Your task to perform on an android device: Open Chrome and go to the settings page Image 0: 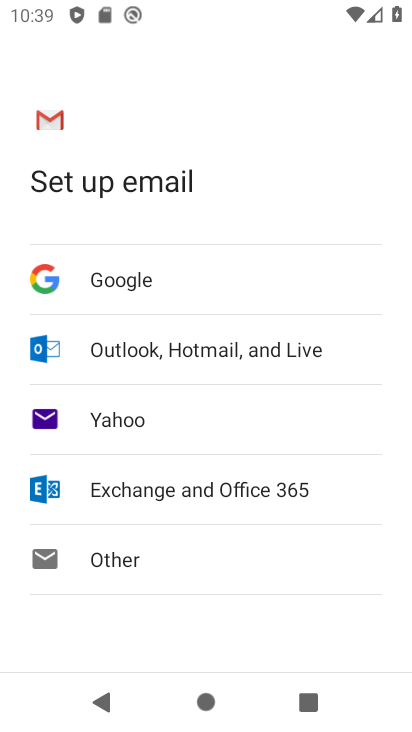
Step 0: press home button
Your task to perform on an android device: Open Chrome and go to the settings page Image 1: 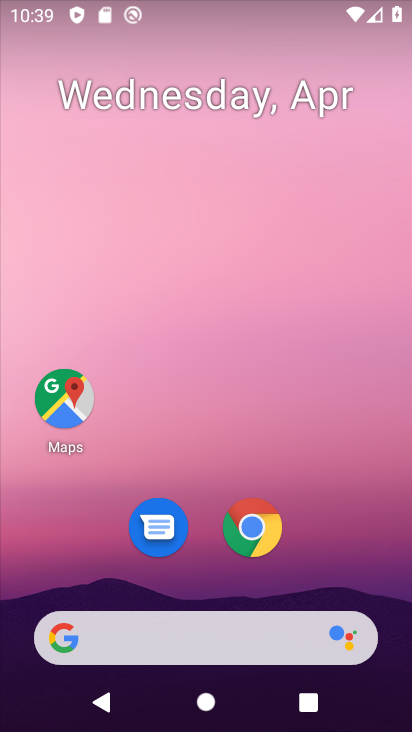
Step 1: drag from (394, 574) to (391, 118)
Your task to perform on an android device: Open Chrome and go to the settings page Image 2: 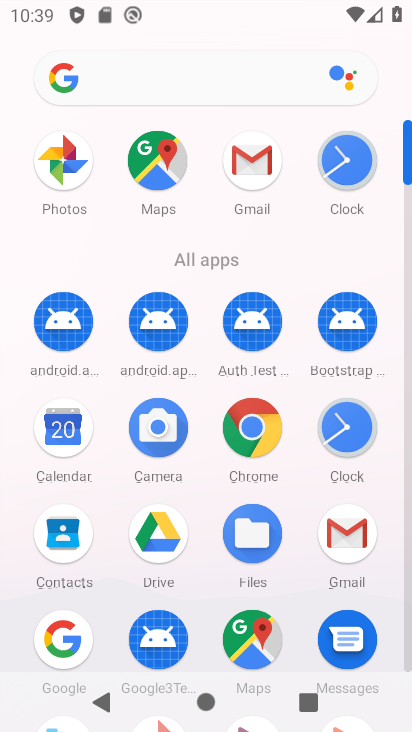
Step 2: click (266, 430)
Your task to perform on an android device: Open Chrome and go to the settings page Image 3: 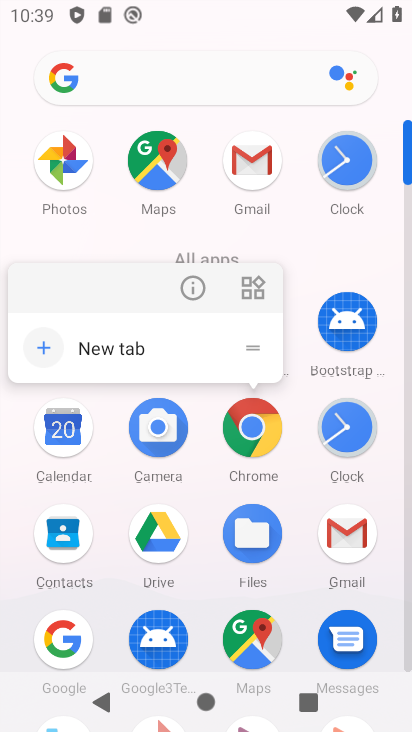
Step 3: click (268, 444)
Your task to perform on an android device: Open Chrome and go to the settings page Image 4: 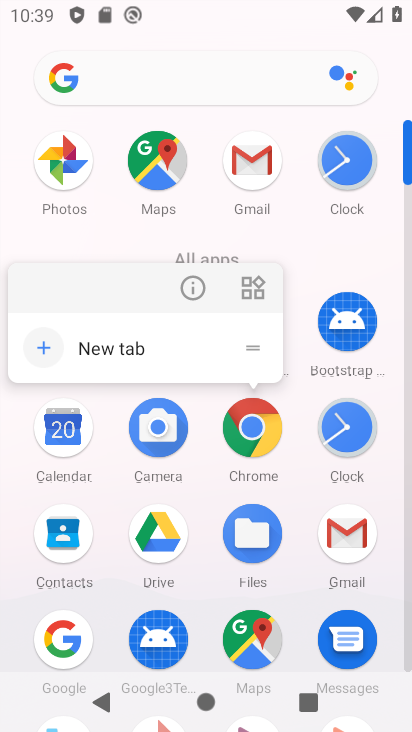
Step 4: click (262, 443)
Your task to perform on an android device: Open Chrome and go to the settings page Image 5: 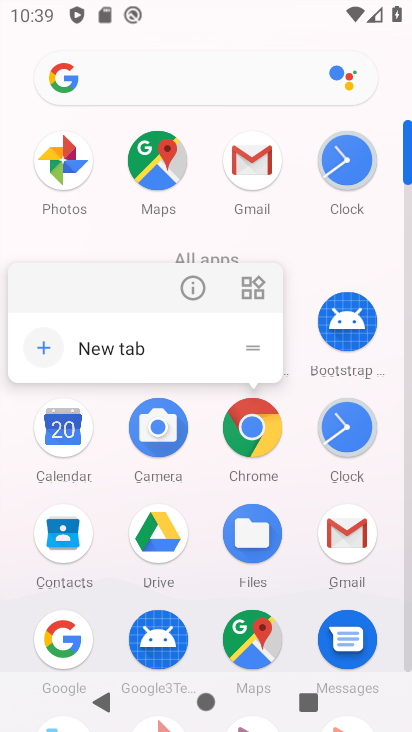
Step 5: click (265, 442)
Your task to perform on an android device: Open Chrome and go to the settings page Image 6: 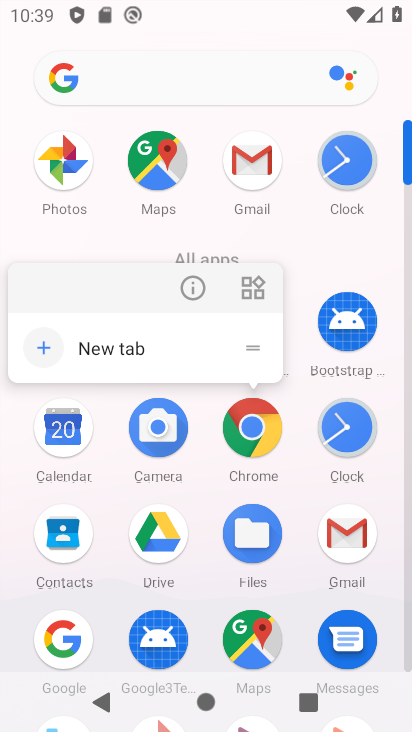
Step 6: click (269, 413)
Your task to perform on an android device: Open Chrome and go to the settings page Image 7: 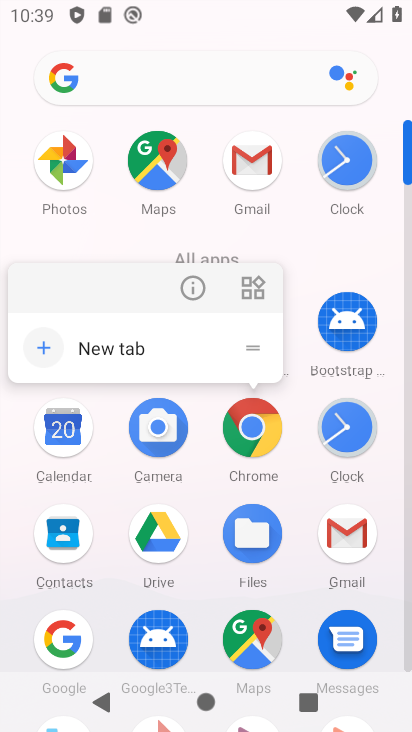
Step 7: click (267, 438)
Your task to perform on an android device: Open Chrome and go to the settings page Image 8: 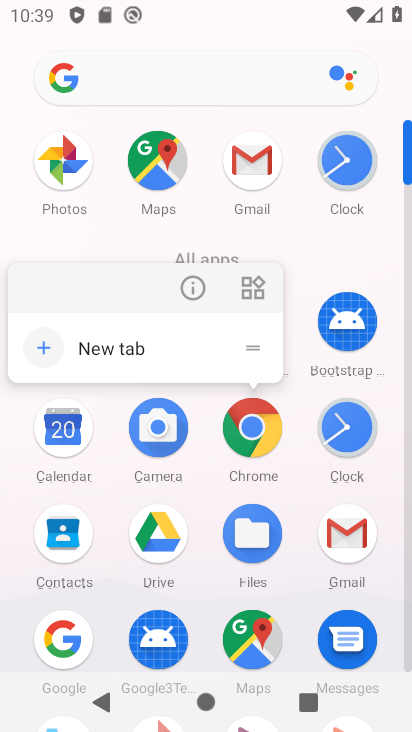
Step 8: click (251, 430)
Your task to perform on an android device: Open Chrome and go to the settings page Image 9: 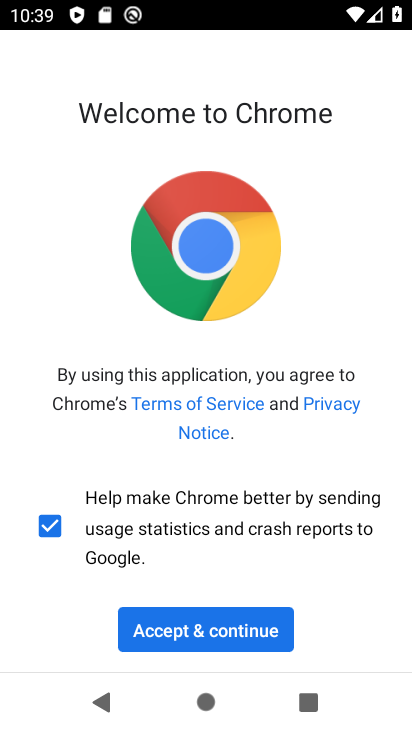
Step 9: click (234, 637)
Your task to perform on an android device: Open Chrome and go to the settings page Image 10: 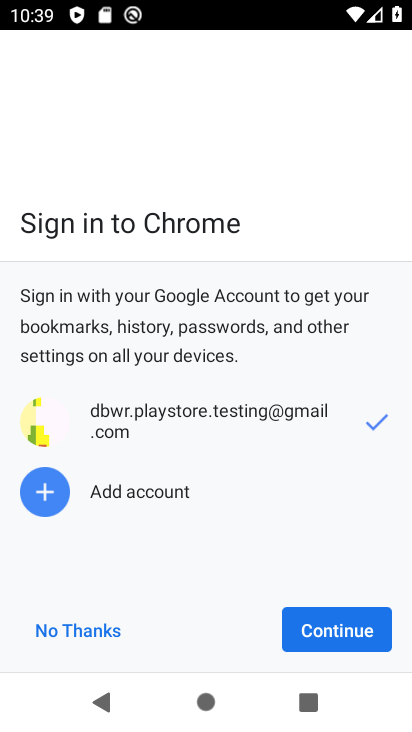
Step 10: click (310, 632)
Your task to perform on an android device: Open Chrome and go to the settings page Image 11: 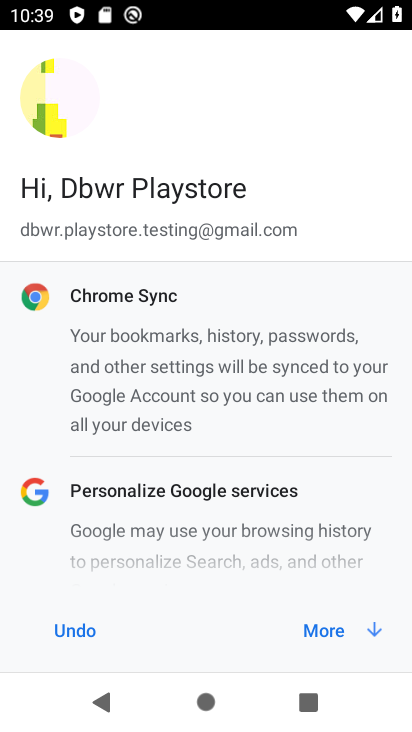
Step 11: click (311, 630)
Your task to perform on an android device: Open Chrome and go to the settings page Image 12: 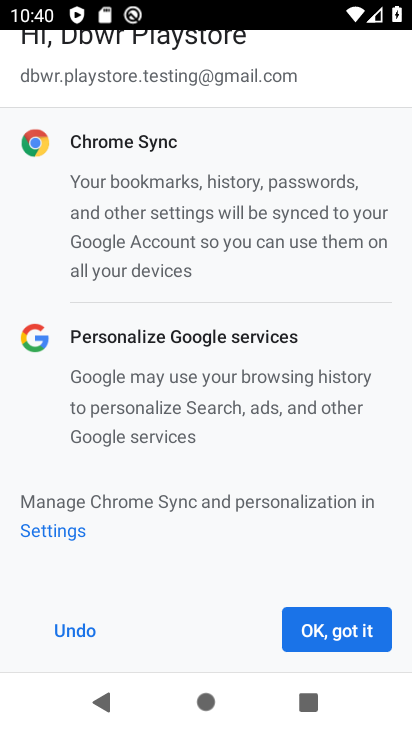
Step 12: click (310, 628)
Your task to perform on an android device: Open Chrome and go to the settings page Image 13: 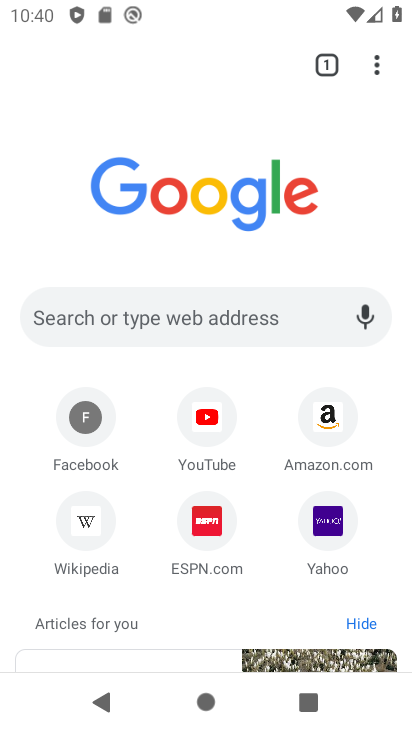
Step 13: click (380, 69)
Your task to perform on an android device: Open Chrome and go to the settings page Image 14: 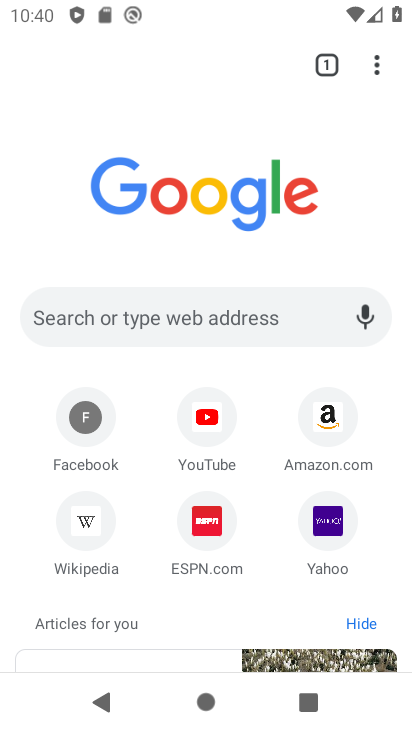
Step 14: click (373, 70)
Your task to perform on an android device: Open Chrome and go to the settings page Image 15: 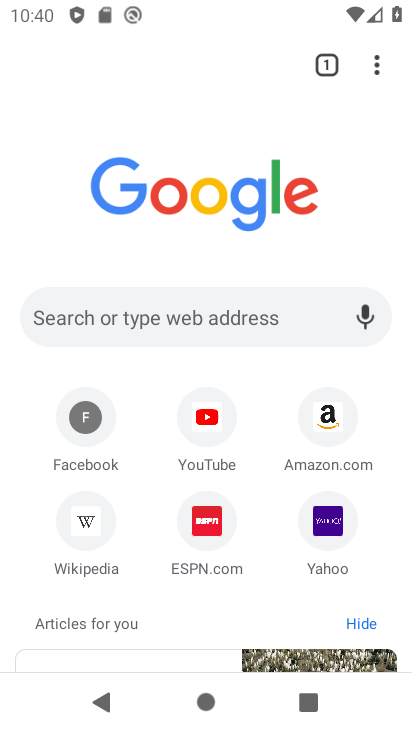
Step 15: click (245, 313)
Your task to perform on an android device: Open Chrome and go to the settings page Image 16: 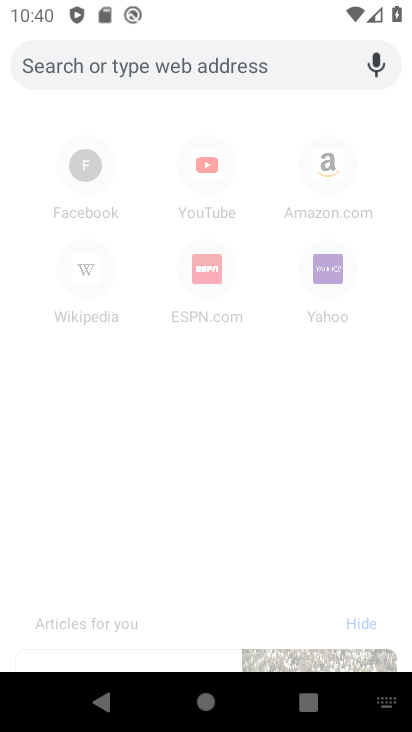
Step 16: click (38, 544)
Your task to perform on an android device: Open Chrome and go to the settings page Image 17: 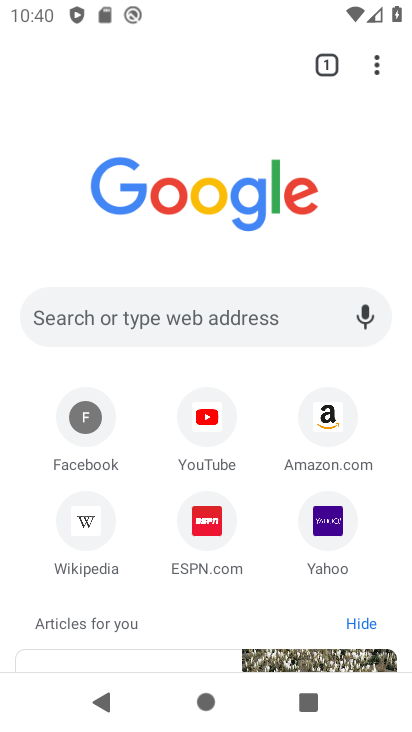
Step 17: click (378, 72)
Your task to perform on an android device: Open Chrome and go to the settings page Image 18: 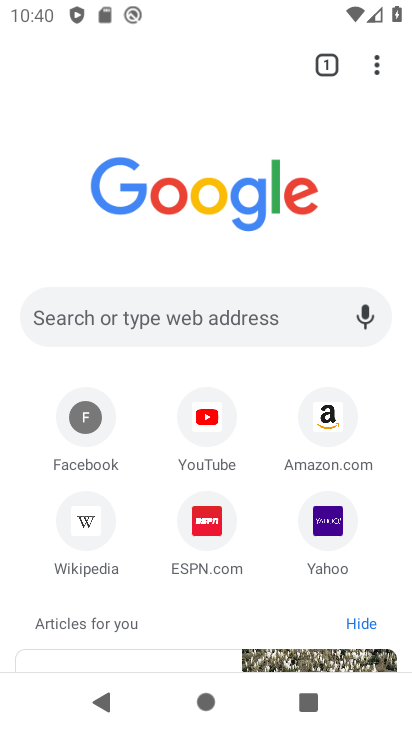
Step 18: task complete